Your task to perform on an android device: choose inbox layout in the gmail app Image 0: 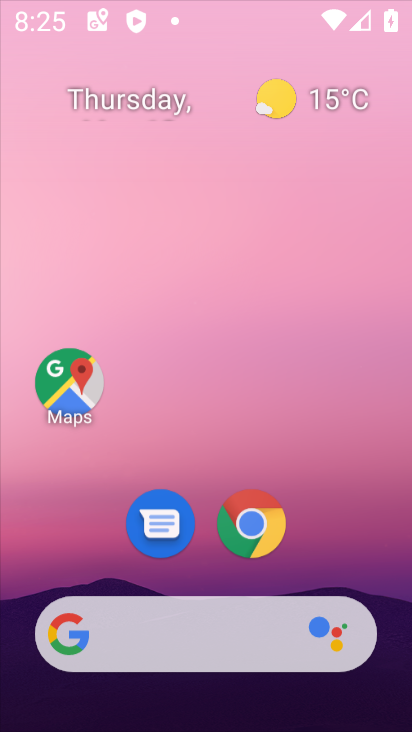
Step 0: click (373, 316)
Your task to perform on an android device: choose inbox layout in the gmail app Image 1: 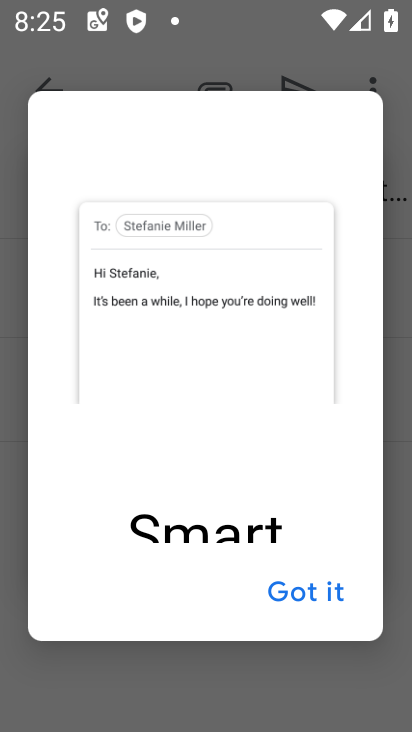
Step 1: press home button
Your task to perform on an android device: choose inbox layout in the gmail app Image 2: 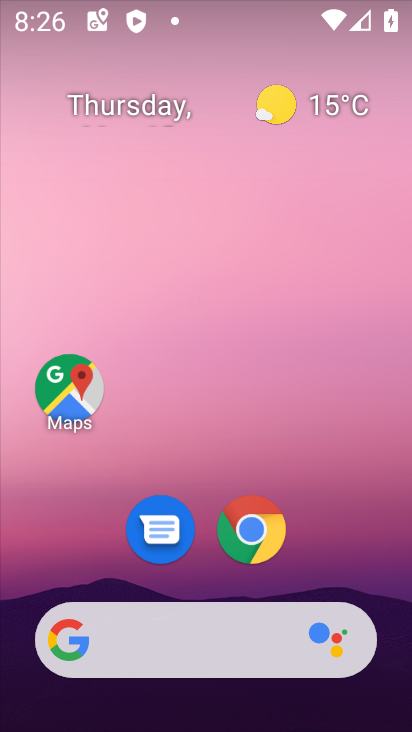
Step 2: drag from (226, 712) to (300, 14)
Your task to perform on an android device: choose inbox layout in the gmail app Image 3: 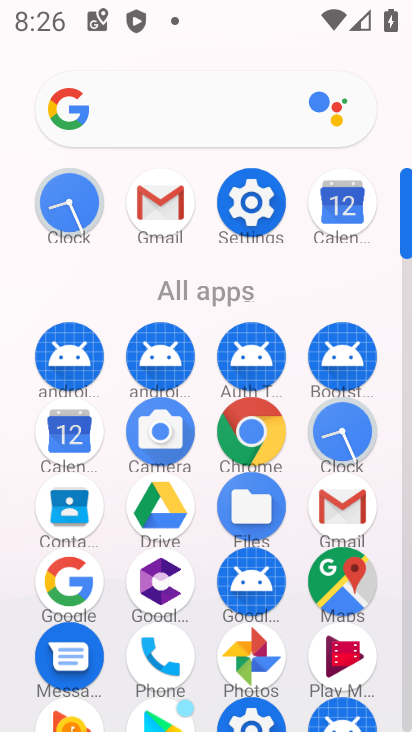
Step 3: click (166, 221)
Your task to perform on an android device: choose inbox layout in the gmail app Image 4: 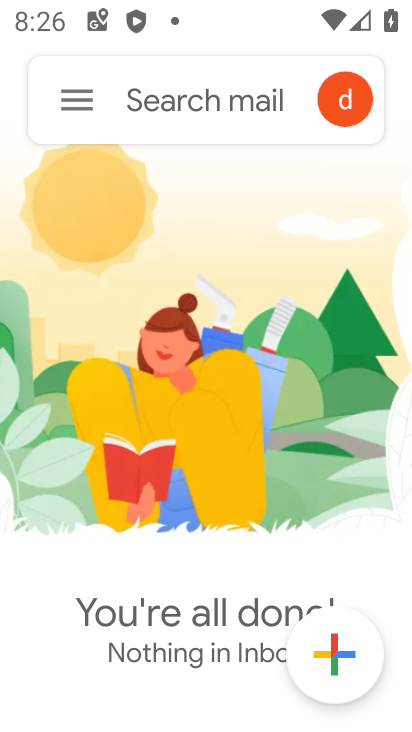
Step 4: click (69, 115)
Your task to perform on an android device: choose inbox layout in the gmail app Image 5: 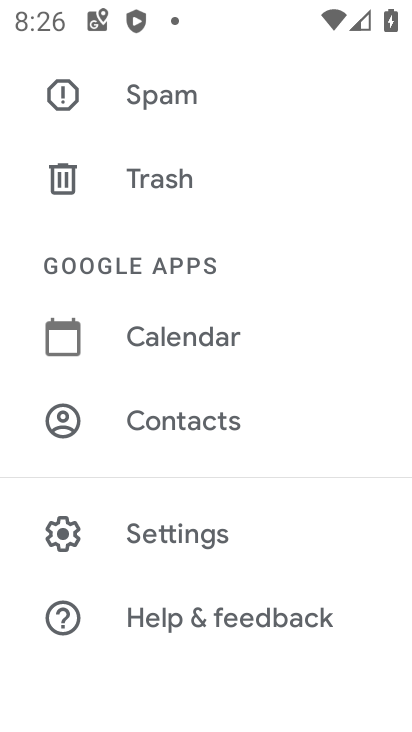
Step 5: click (209, 535)
Your task to perform on an android device: choose inbox layout in the gmail app Image 6: 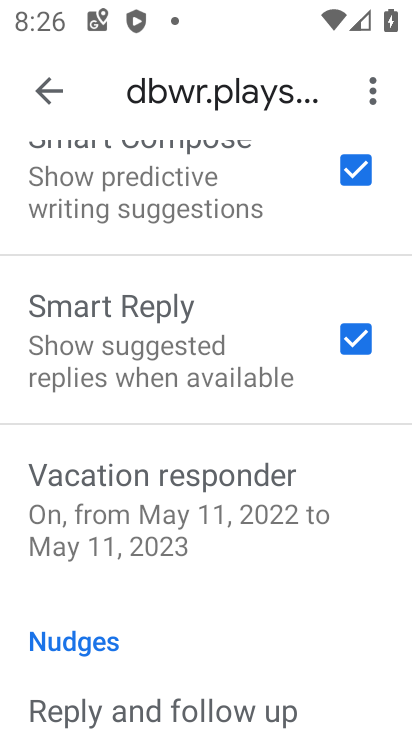
Step 6: click (51, 93)
Your task to perform on an android device: choose inbox layout in the gmail app Image 7: 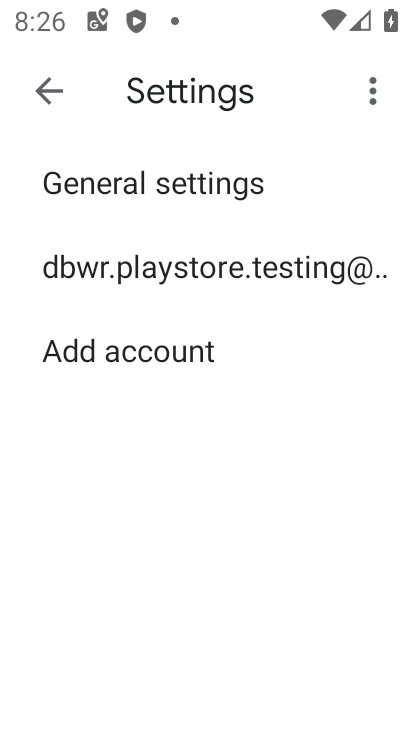
Step 7: click (230, 273)
Your task to perform on an android device: choose inbox layout in the gmail app Image 8: 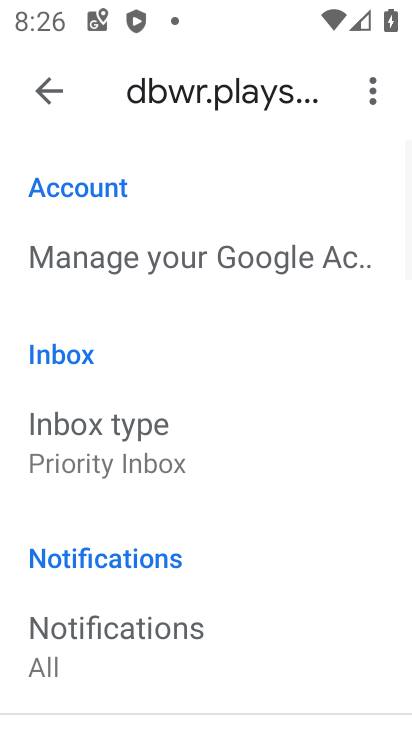
Step 8: drag from (239, 238) to (193, 649)
Your task to perform on an android device: choose inbox layout in the gmail app Image 9: 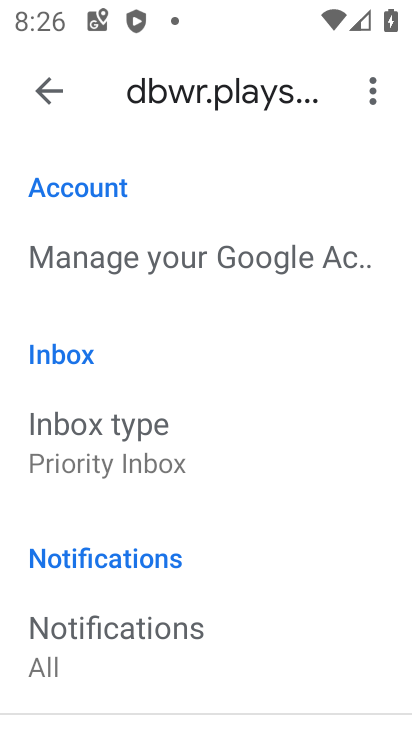
Step 9: drag from (253, 658) to (288, 43)
Your task to perform on an android device: choose inbox layout in the gmail app Image 10: 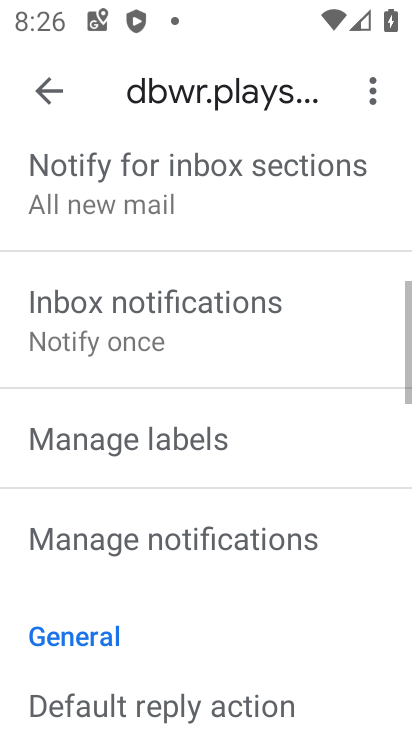
Step 10: drag from (238, 116) to (144, 710)
Your task to perform on an android device: choose inbox layout in the gmail app Image 11: 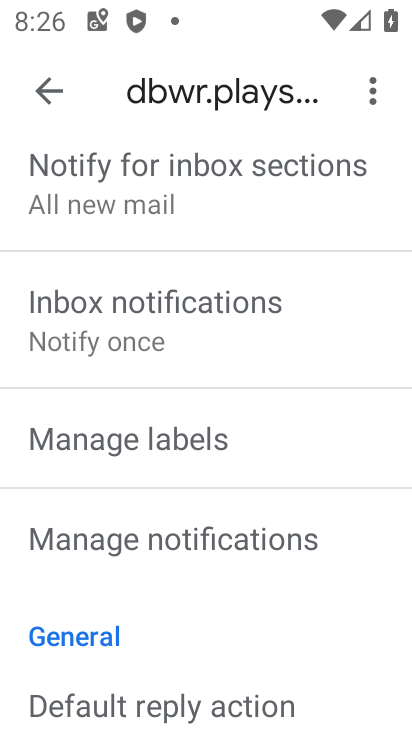
Step 11: drag from (295, 261) to (221, 695)
Your task to perform on an android device: choose inbox layout in the gmail app Image 12: 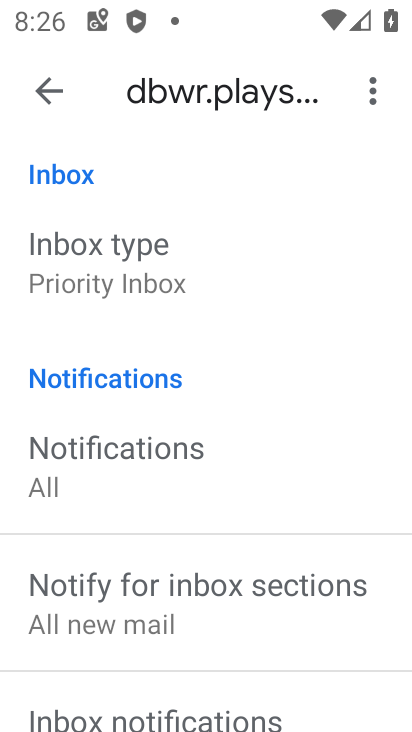
Step 12: click (144, 273)
Your task to perform on an android device: choose inbox layout in the gmail app Image 13: 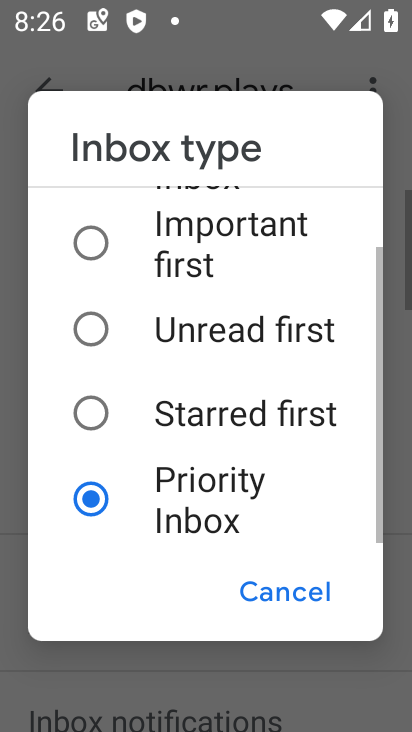
Step 13: click (189, 253)
Your task to perform on an android device: choose inbox layout in the gmail app Image 14: 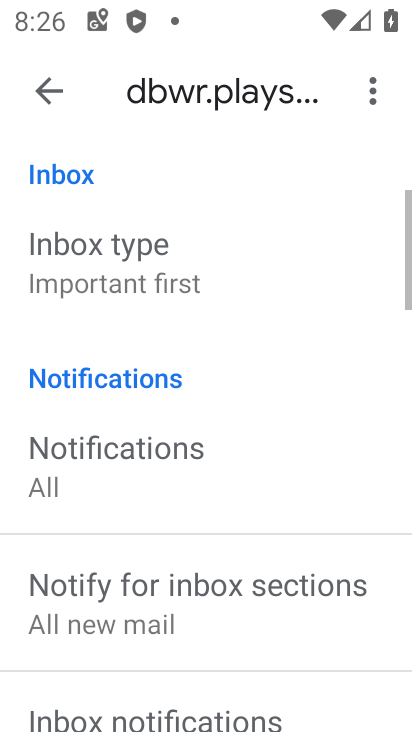
Step 14: task complete